Your task to perform on an android device: Do I have any events tomorrow? Image 0: 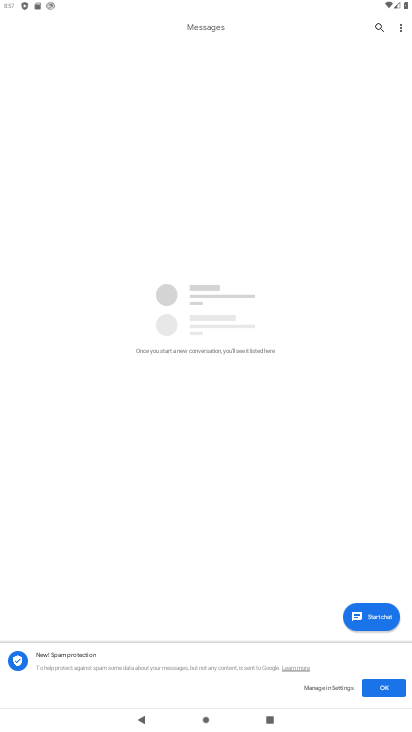
Step 0: press home button
Your task to perform on an android device: Do I have any events tomorrow? Image 1: 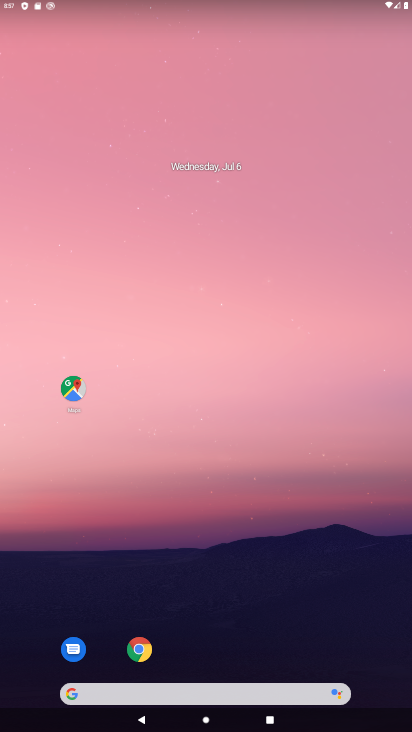
Step 1: drag from (197, 650) to (237, 227)
Your task to perform on an android device: Do I have any events tomorrow? Image 2: 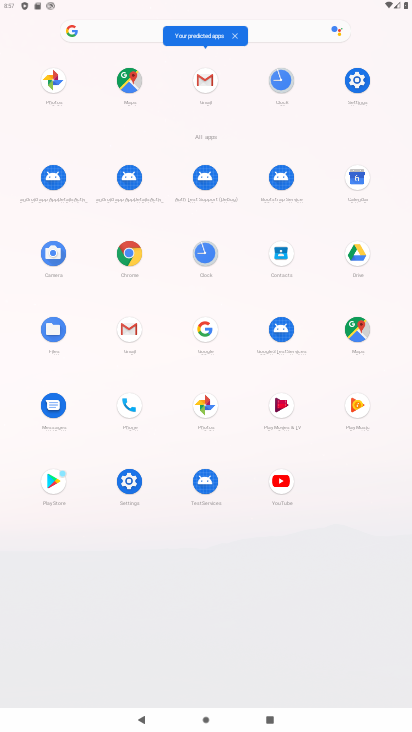
Step 2: click (361, 185)
Your task to perform on an android device: Do I have any events tomorrow? Image 3: 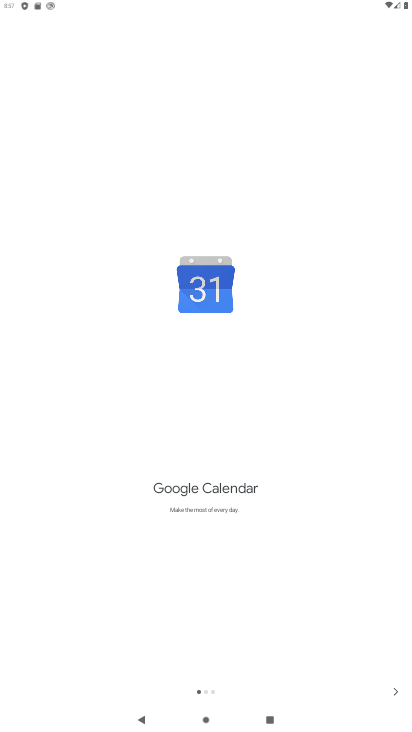
Step 3: click (401, 691)
Your task to perform on an android device: Do I have any events tomorrow? Image 4: 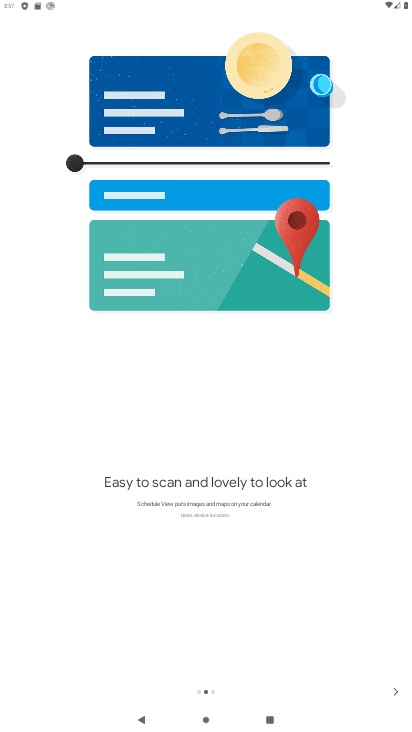
Step 4: click (391, 687)
Your task to perform on an android device: Do I have any events tomorrow? Image 5: 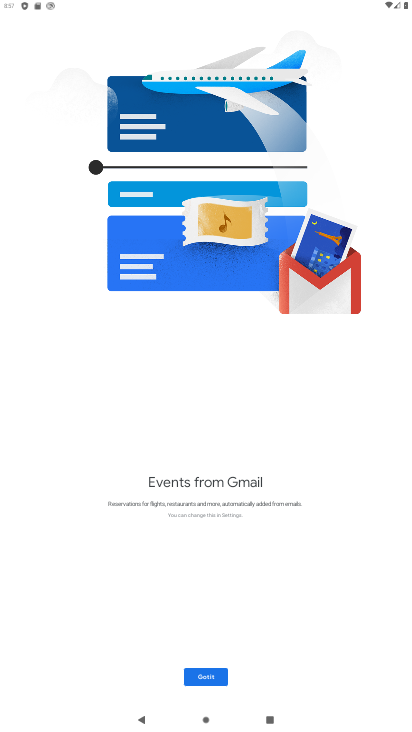
Step 5: click (224, 675)
Your task to perform on an android device: Do I have any events tomorrow? Image 6: 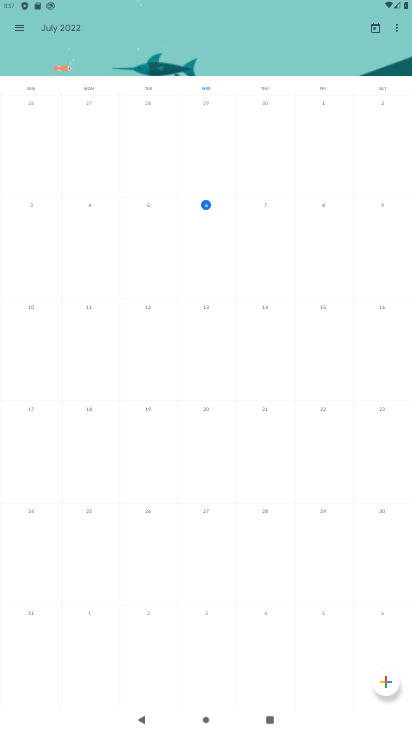
Step 6: click (256, 229)
Your task to perform on an android device: Do I have any events tomorrow? Image 7: 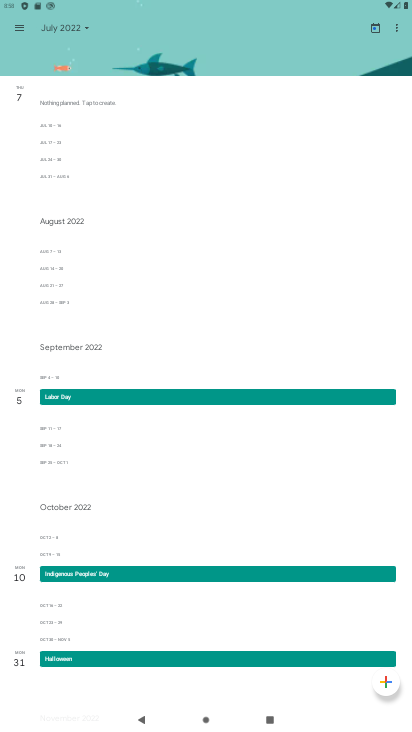
Step 7: task complete